Your task to perform on an android device: clear all cookies in the chrome app Image 0: 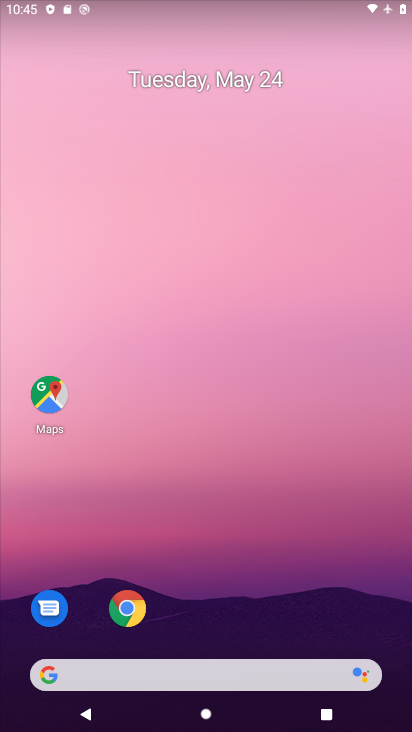
Step 0: click (126, 606)
Your task to perform on an android device: clear all cookies in the chrome app Image 1: 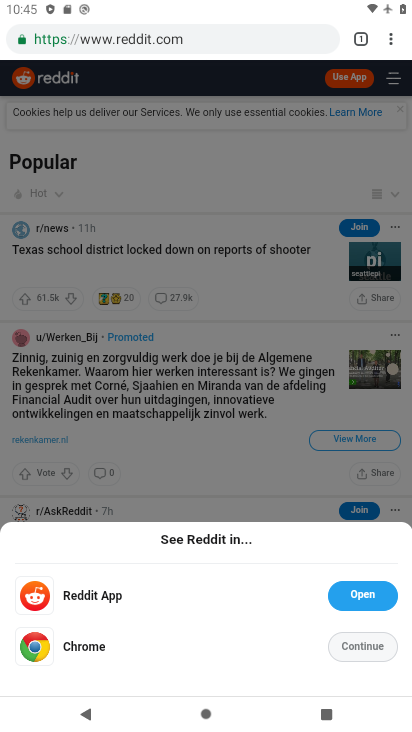
Step 1: click (387, 41)
Your task to perform on an android device: clear all cookies in the chrome app Image 2: 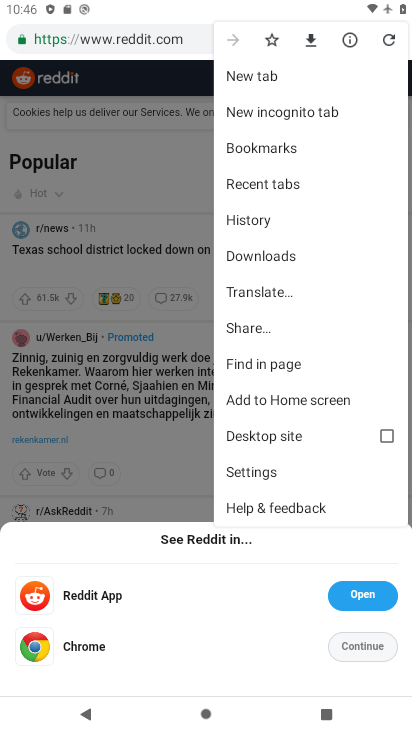
Step 2: click (257, 468)
Your task to perform on an android device: clear all cookies in the chrome app Image 3: 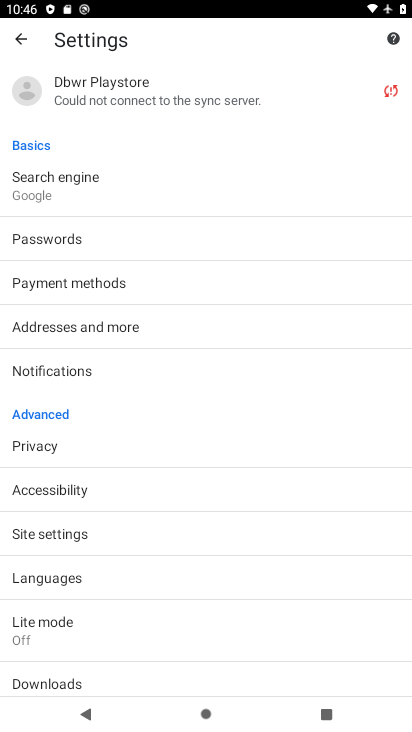
Step 3: press back button
Your task to perform on an android device: clear all cookies in the chrome app Image 4: 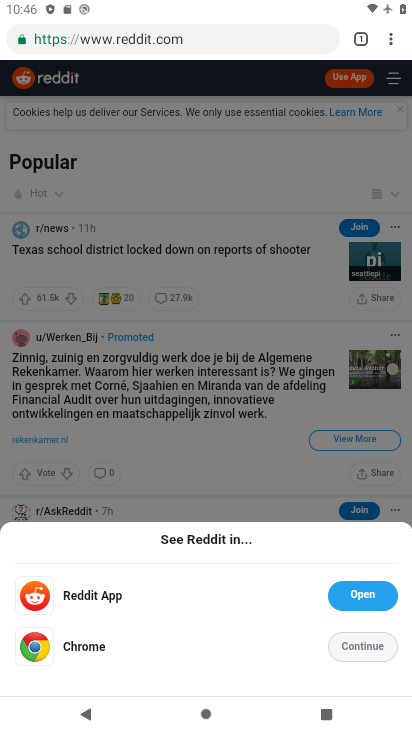
Step 4: click (390, 40)
Your task to perform on an android device: clear all cookies in the chrome app Image 5: 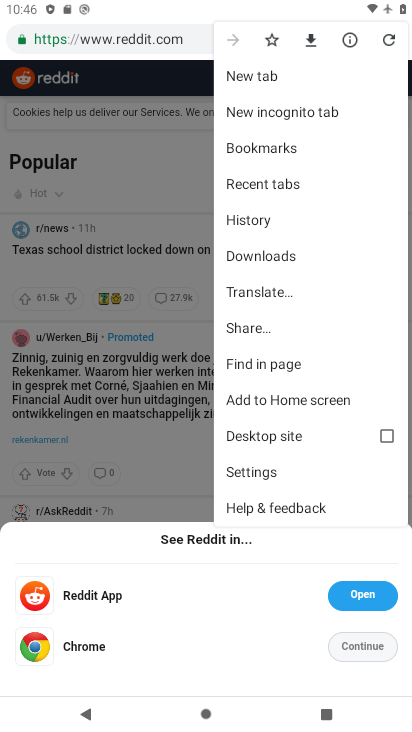
Step 5: click (244, 211)
Your task to perform on an android device: clear all cookies in the chrome app Image 6: 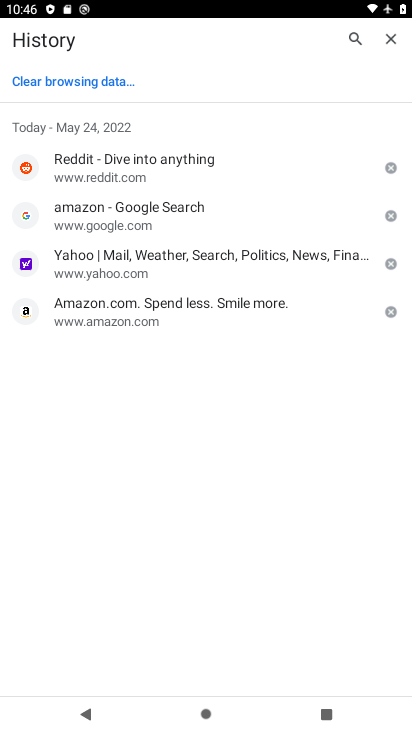
Step 6: click (73, 76)
Your task to perform on an android device: clear all cookies in the chrome app Image 7: 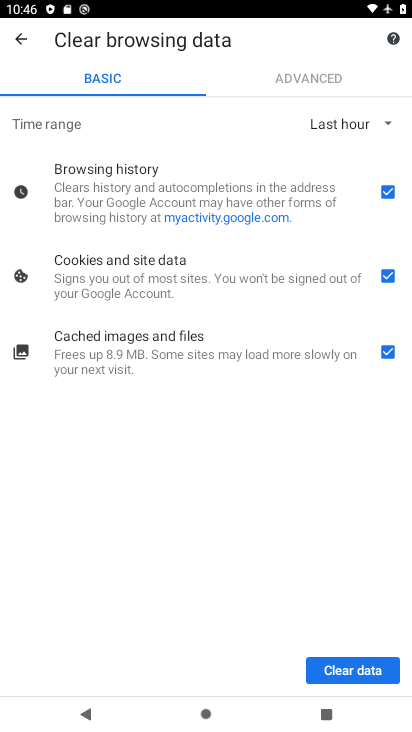
Step 7: click (380, 192)
Your task to perform on an android device: clear all cookies in the chrome app Image 8: 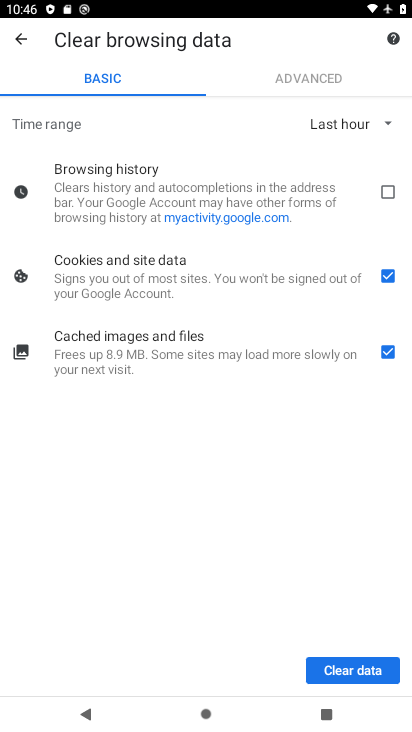
Step 8: click (384, 350)
Your task to perform on an android device: clear all cookies in the chrome app Image 9: 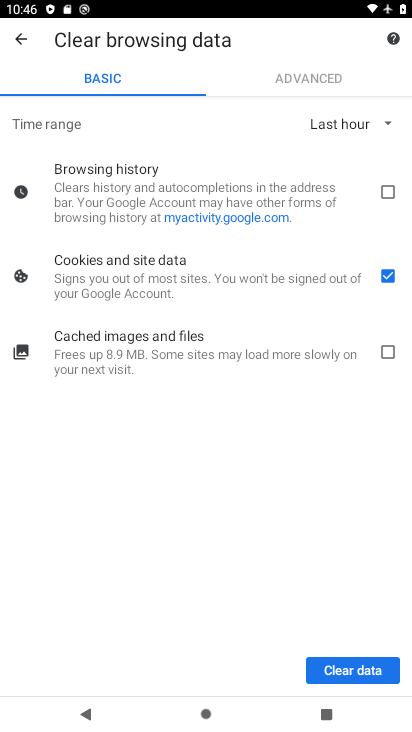
Step 9: click (358, 670)
Your task to perform on an android device: clear all cookies in the chrome app Image 10: 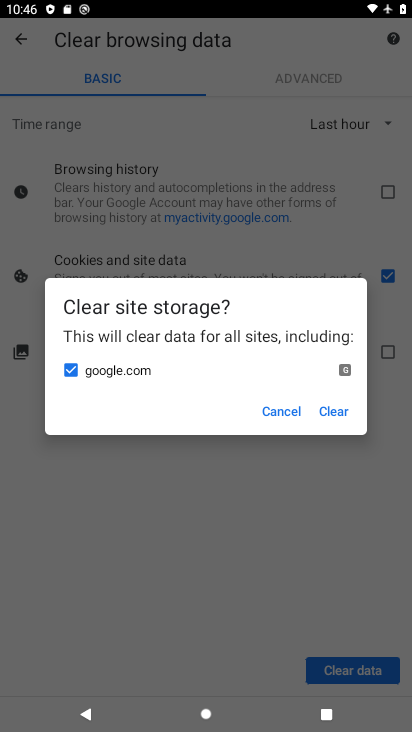
Step 10: click (326, 413)
Your task to perform on an android device: clear all cookies in the chrome app Image 11: 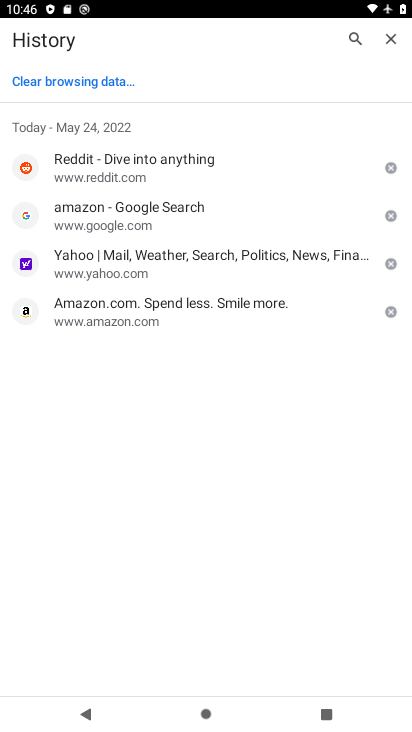
Step 11: task complete